Your task to perform on an android device: Open my contact list Image 0: 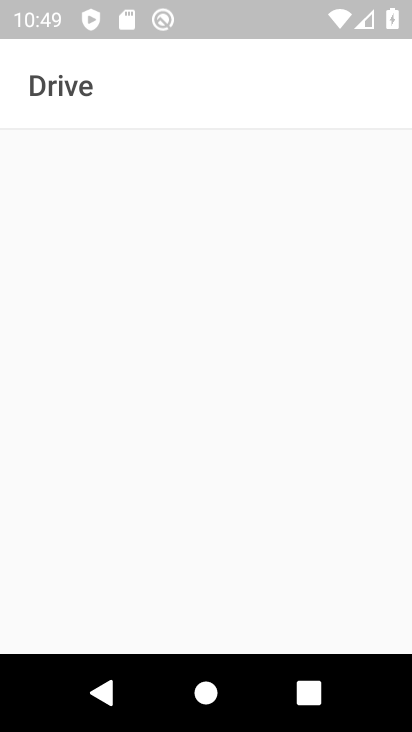
Step 0: press home button
Your task to perform on an android device: Open my contact list Image 1: 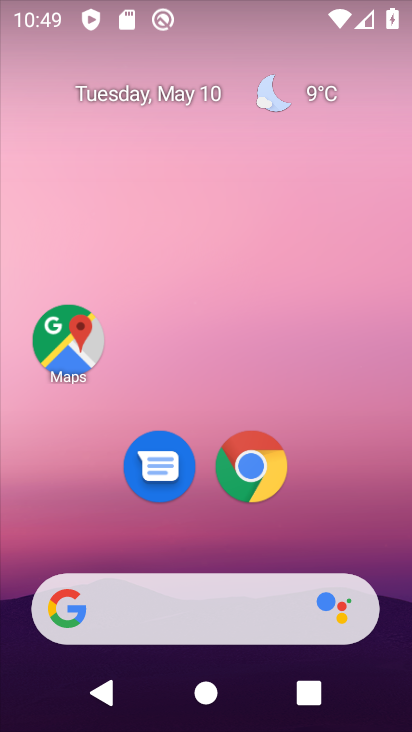
Step 1: drag from (240, 116) to (236, 0)
Your task to perform on an android device: Open my contact list Image 2: 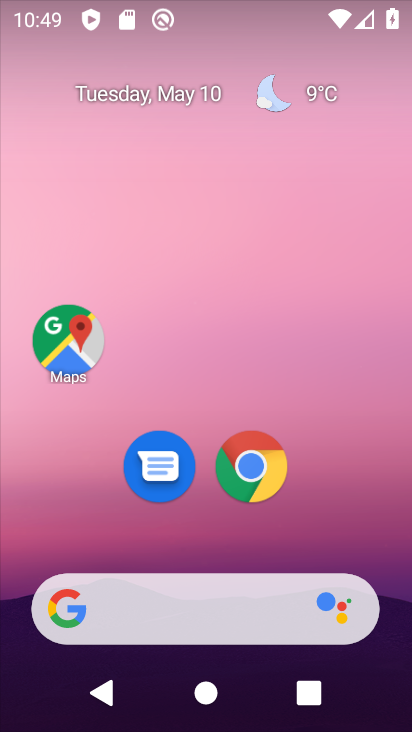
Step 2: drag from (135, 547) to (159, 8)
Your task to perform on an android device: Open my contact list Image 3: 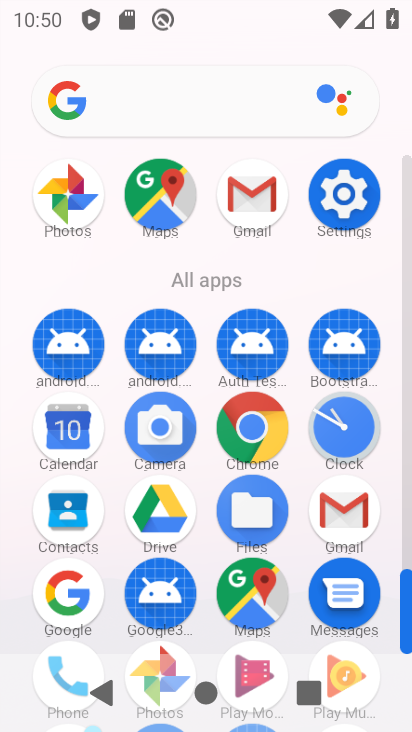
Step 3: click (62, 502)
Your task to perform on an android device: Open my contact list Image 4: 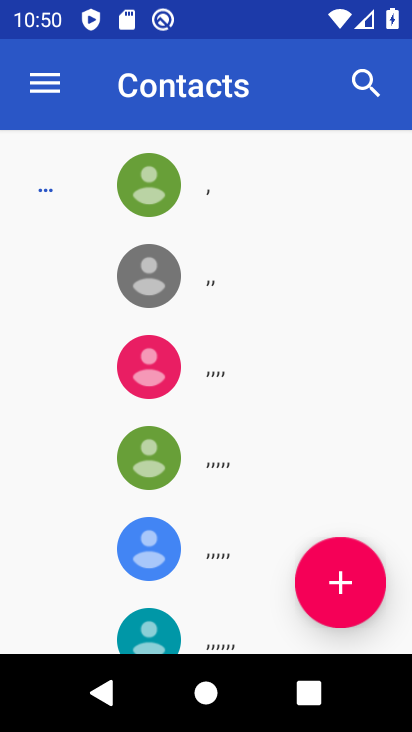
Step 4: task complete